Your task to perform on an android device: turn smart compose on in the gmail app Image 0: 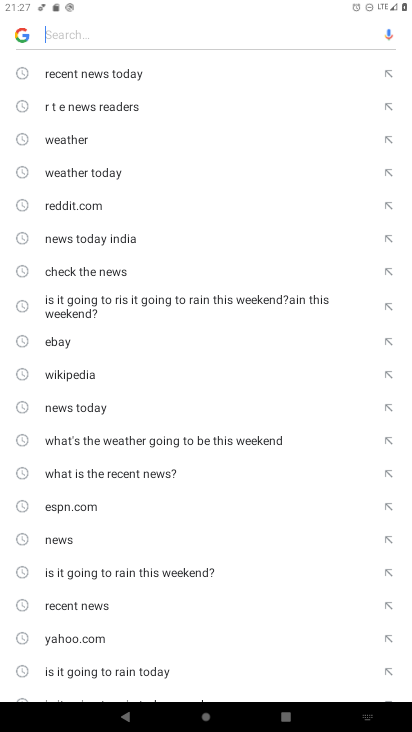
Step 0: press home button
Your task to perform on an android device: turn smart compose on in the gmail app Image 1: 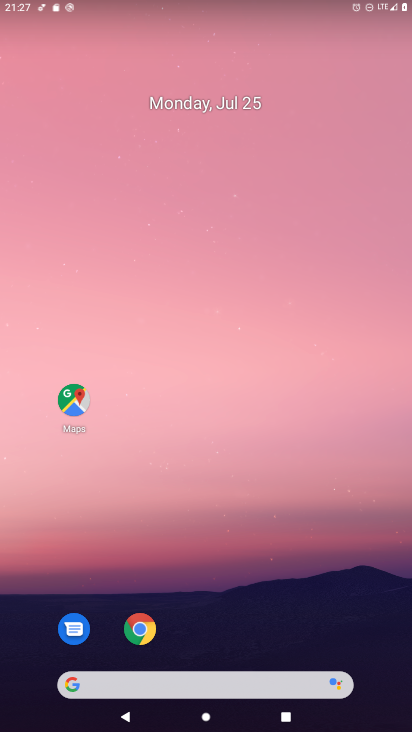
Step 1: drag from (196, 682) to (201, 291)
Your task to perform on an android device: turn smart compose on in the gmail app Image 2: 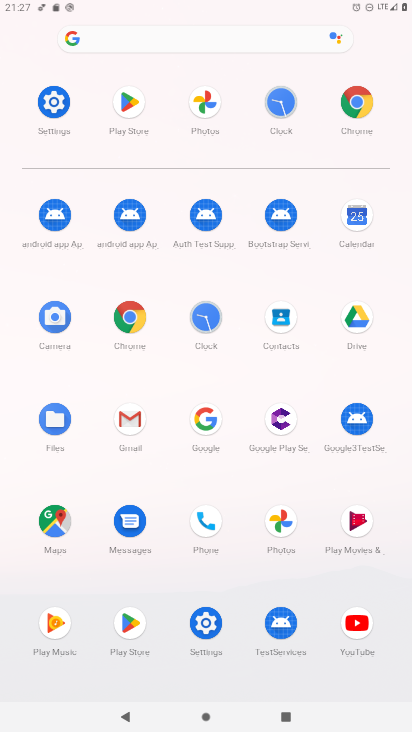
Step 2: click (129, 417)
Your task to perform on an android device: turn smart compose on in the gmail app Image 3: 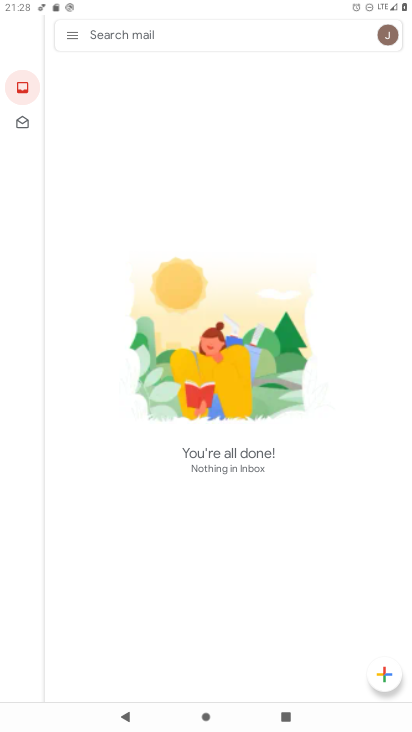
Step 3: click (68, 35)
Your task to perform on an android device: turn smart compose on in the gmail app Image 4: 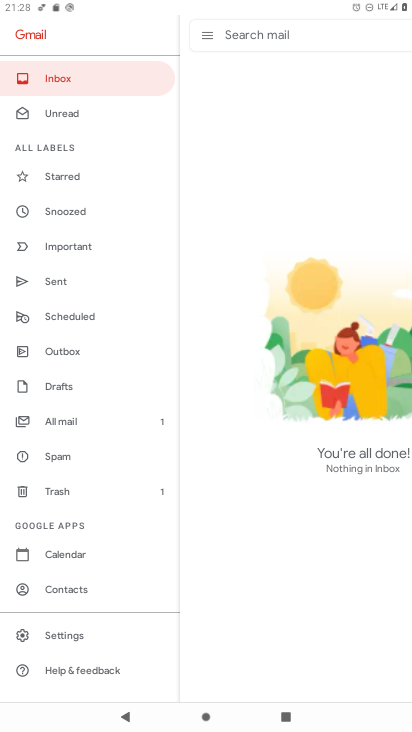
Step 4: click (69, 635)
Your task to perform on an android device: turn smart compose on in the gmail app Image 5: 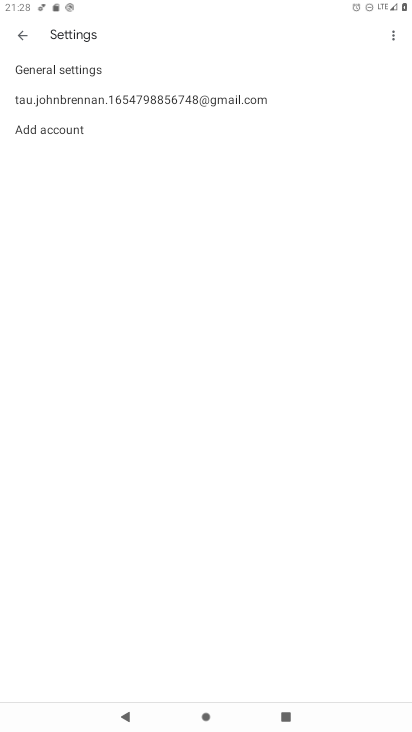
Step 5: click (234, 101)
Your task to perform on an android device: turn smart compose on in the gmail app Image 6: 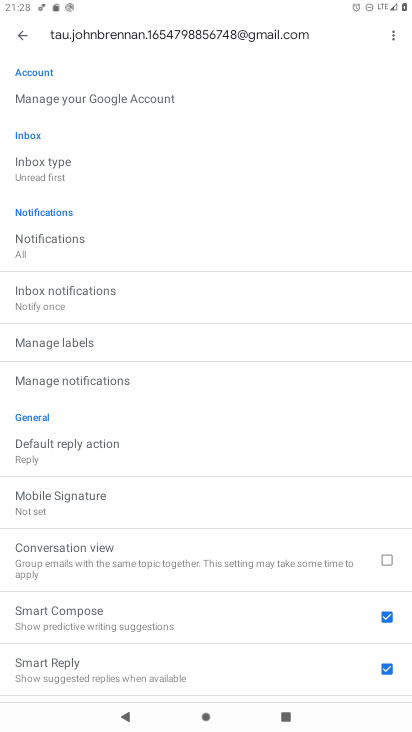
Step 6: task complete